Your task to perform on an android device: toggle improve location accuracy Image 0: 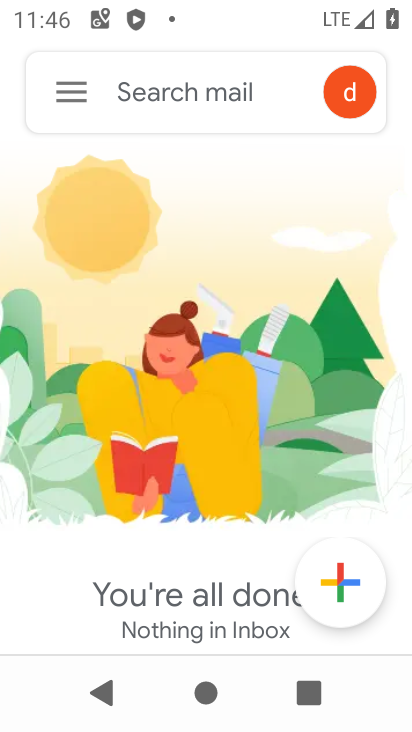
Step 0: press back button
Your task to perform on an android device: toggle improve location accuracy Image 1: 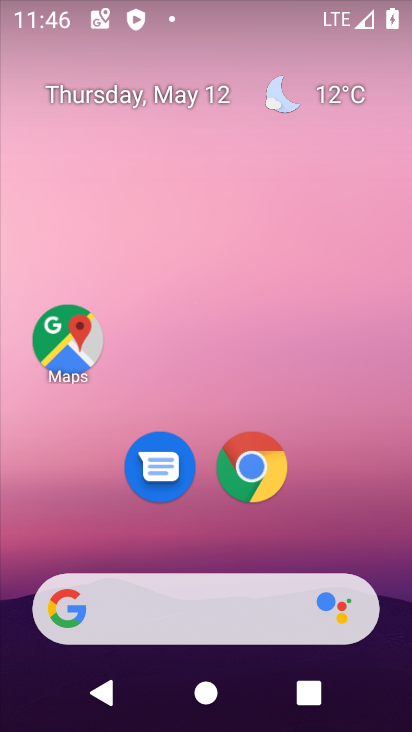
Step 1: drag from (303, 518) to (251, 52)
Your task to perform on an android device: toggle improve location accuracy Image 2: 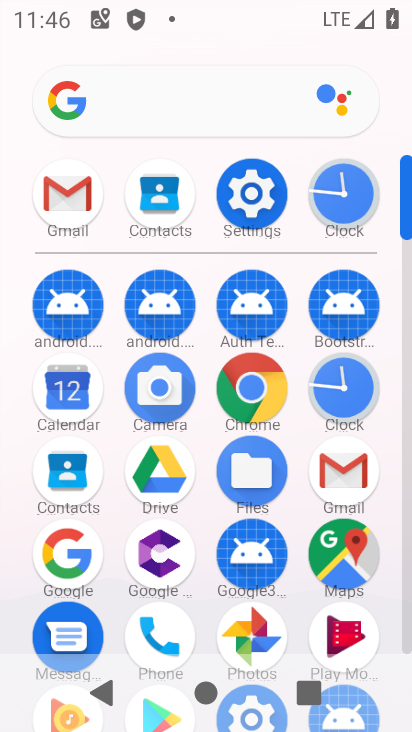
Step 2: drag from (24, 532) to (7, 227)
Your task to perform on an android device: toggle improve location accuracy Image 3: 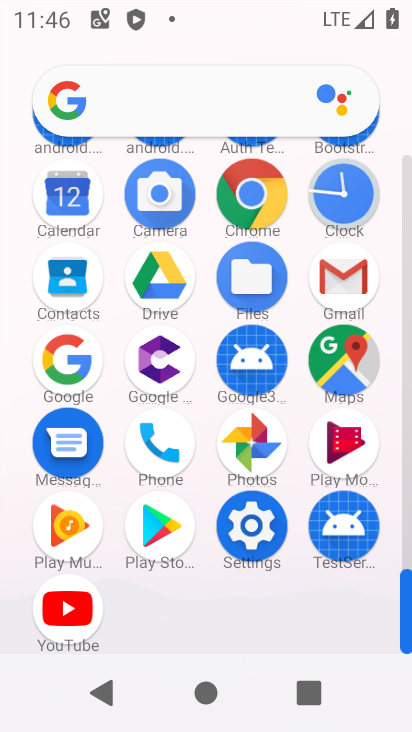
Step 3: click (249, 520)
Your task to perform on an android device: toggle improve location accuracy Image 4: 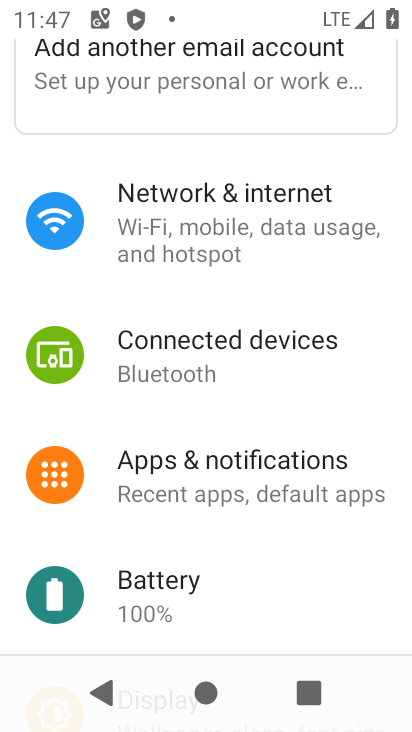
Step 4: drag from (283, 561) to (267, 174)
Your task to perform on an android device: toggle improve location accuracy Image 5: 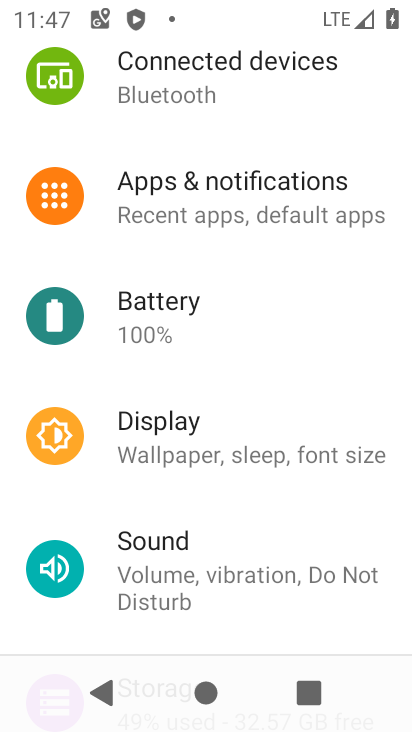
Step 5: drag from (305, 513) to (288, 227)
Your task to perform on an android device: toggle improve location accuracy Image 6: 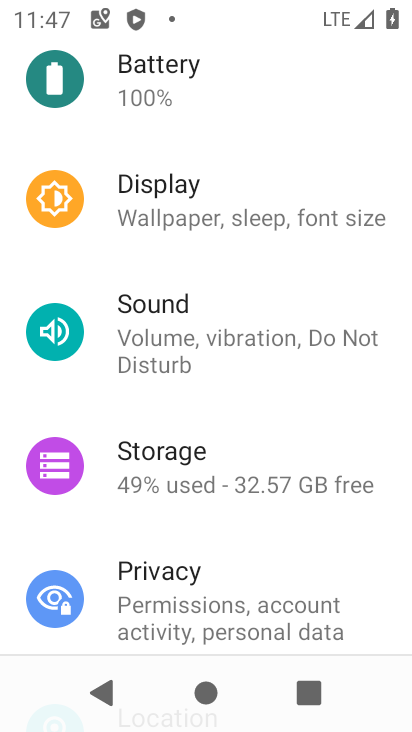
Step 6: drag from (262, 496) to (272, 225)
Your task to perform on an android device: toggle improve location accuracy Image 7: 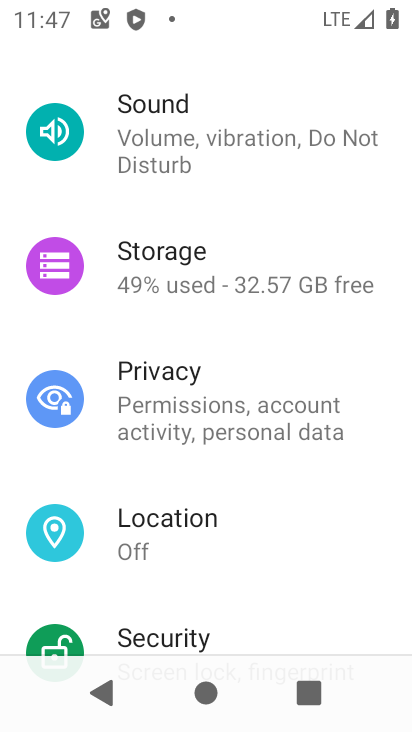
Step 7: click (195, 520)
Your task to perform on an android device: toggle improve location accuracy Image 8: 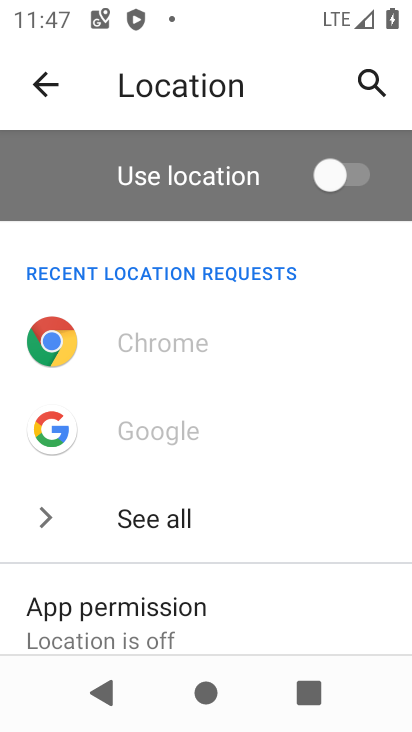
Step 8: drag from (255, 520) to (241, 171)
Your task to perform on an android device: toggle improve location accuracy Image 9: 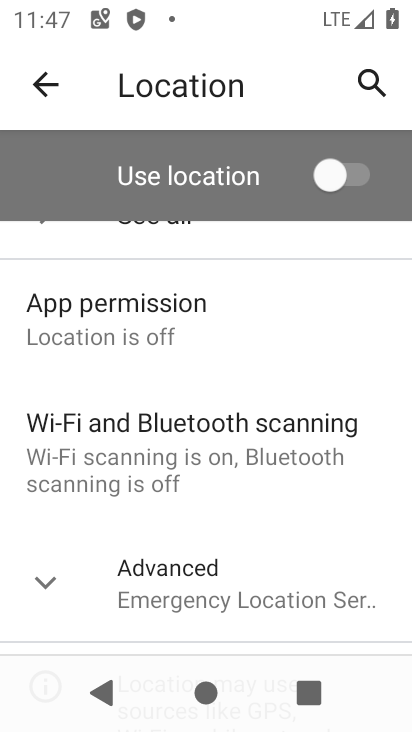
Step 9: drag from (248, 508) to (239, 294)
Your task to perform on an android device: toggle improve location accuracy Image 10: 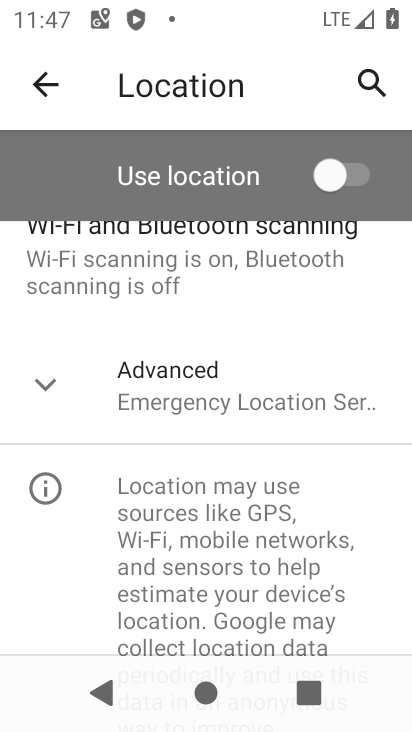
Step 10: click (49, 368)
Your task to perform on an android device: toggle improve location accuracy Image 11: 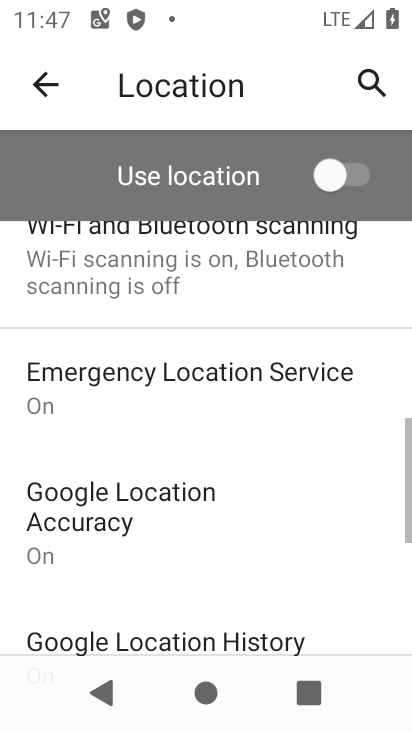
Step 11: drag from (283, 581) to (267, 320)
Your task to perform on an android device: toggle improve location accuracy Image 12: 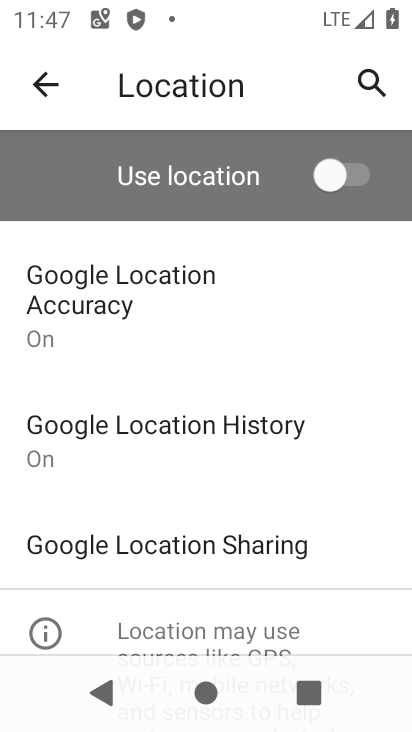
Step 12: click (185, 295)
Your task to perform on an android device: toggle improve location accuracy Image 13: 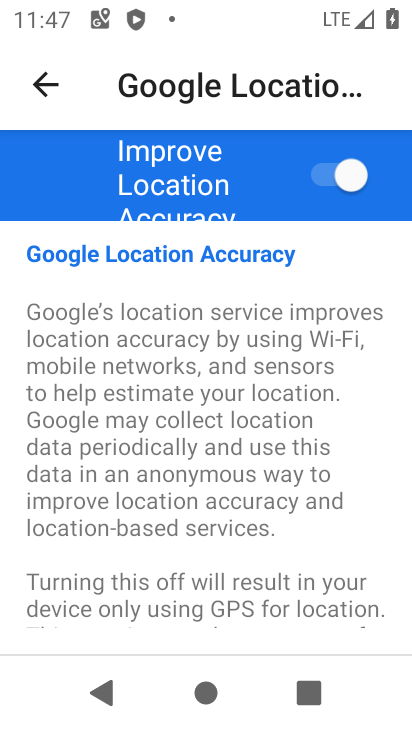
Step 13: click (339, 166)
Your task to perform on an android device: toggle improve location accuracy Image 14: 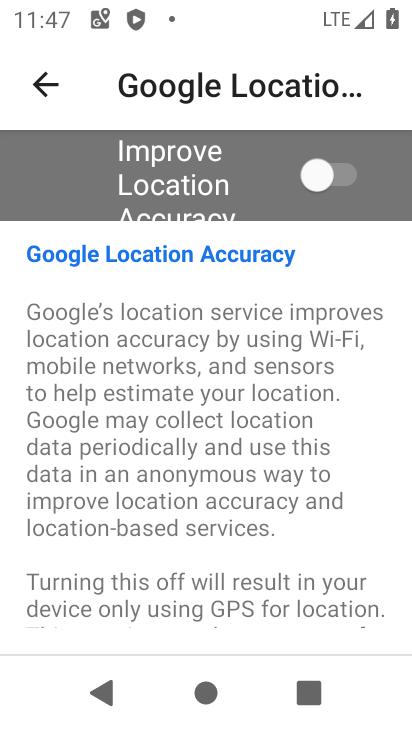
Step 14: task complete